Your task to perform on an android device: Open Chrome and go to settings Image 0: 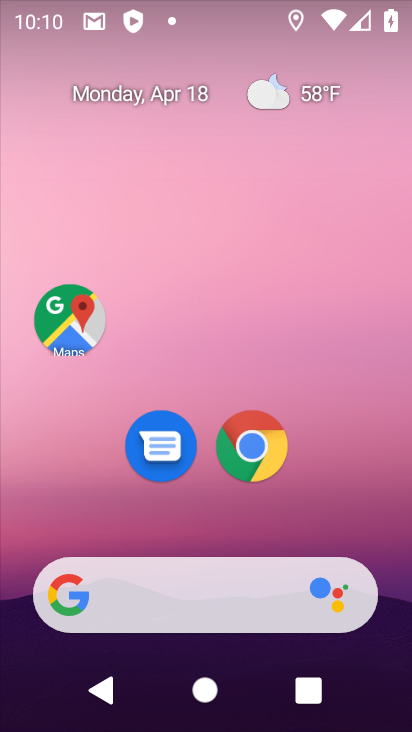
Step 0: drag from (382, 518) to (374, 125)
Your task to perform on an android device: Open Chrome and go to settings Image 1: 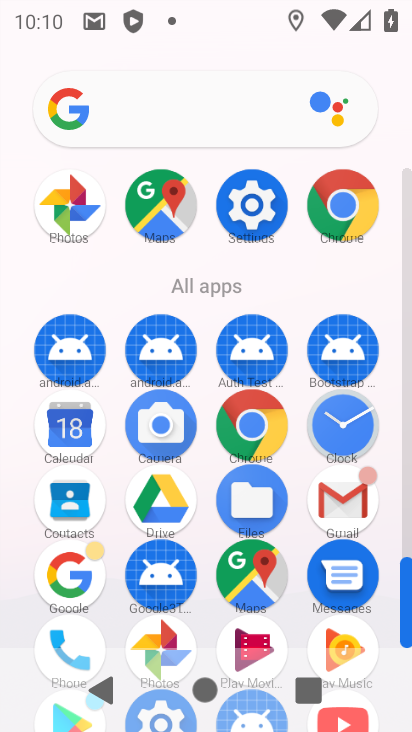
Step 1: click (251, 437)
Your task to perform on an android device: Open Chrome and go to settings Image 2: 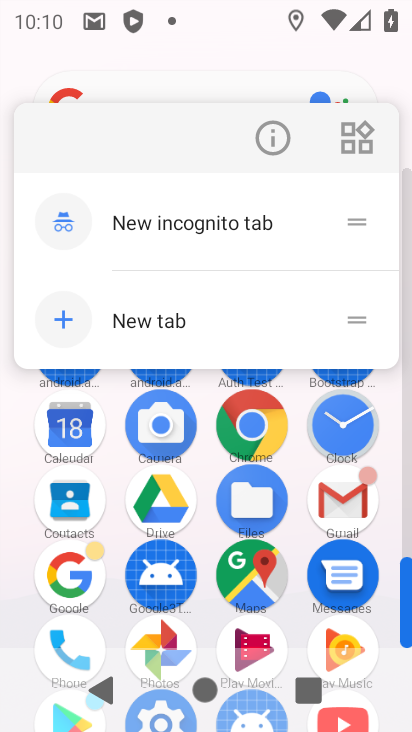
Step 2: click (253, 434)
Your task to perform on an android device: Open Chrome and go to settings Image 3: 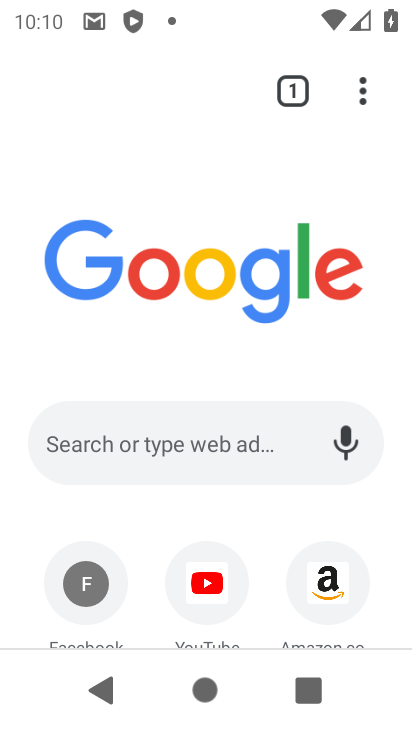
Step 3: click (364, 87)
Your task to perform on an android device: Open Chrome and go to settings Image 4: 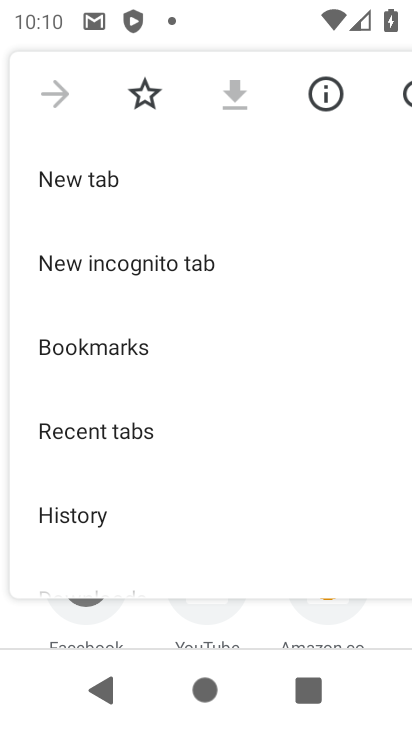
Step 4: drag from (340, 423) to (355, 277)
Your task to perform on an android device: Open Chrome and go to settings Image 5: 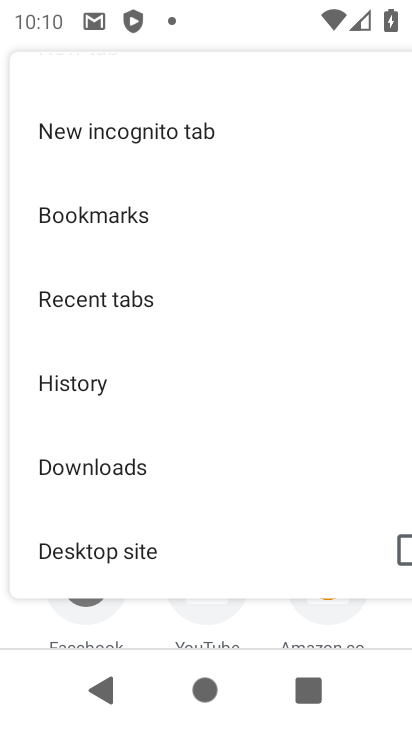
Step 5: drag from (331, 436) to (332, 238)
Your task to perform on an android device: Open Chrome and go to settings Image 6: 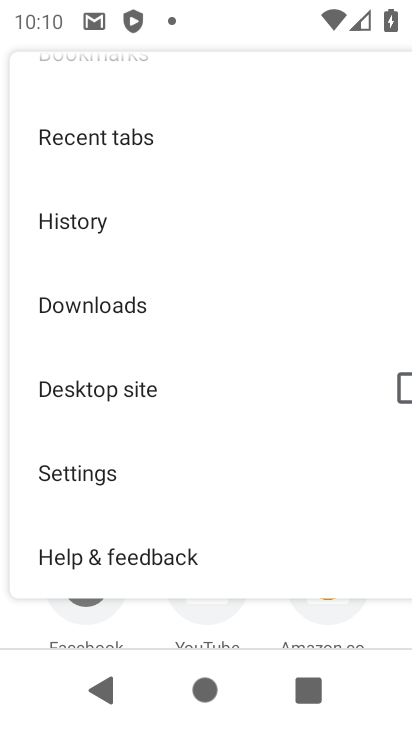
Step 6: drag from (305, 444) to (308, 294)
Your task to perform on an android device: Open Chrome and go to settings Image 7: 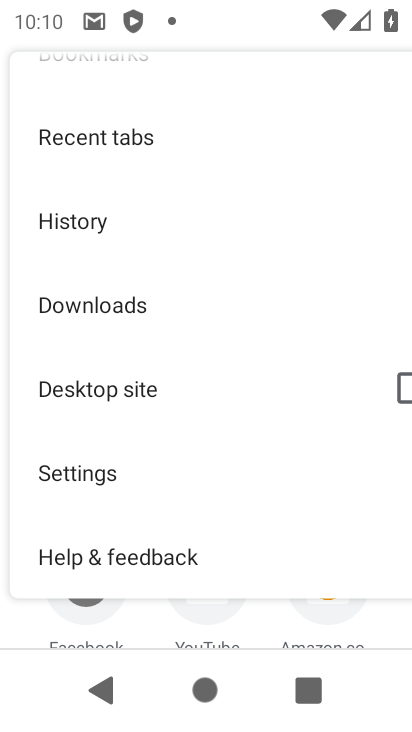
Step 7: click (99, 476)
Your task to perform on an android device: Open Chrome and go to settings Image 8: 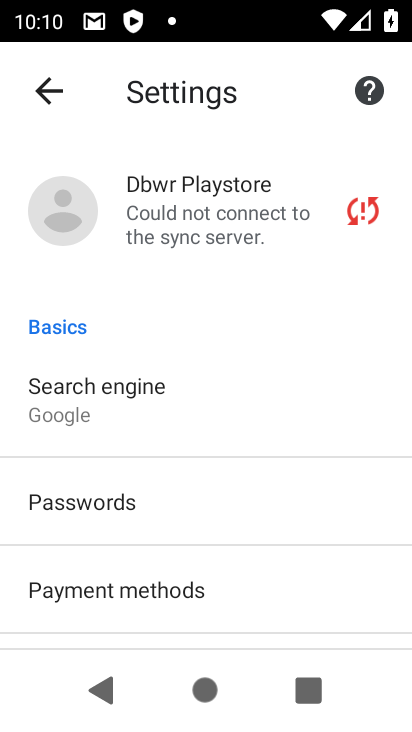
Step 8: task complete